Your task to perform on an android device: turn on translation in the chrome app Image 0: 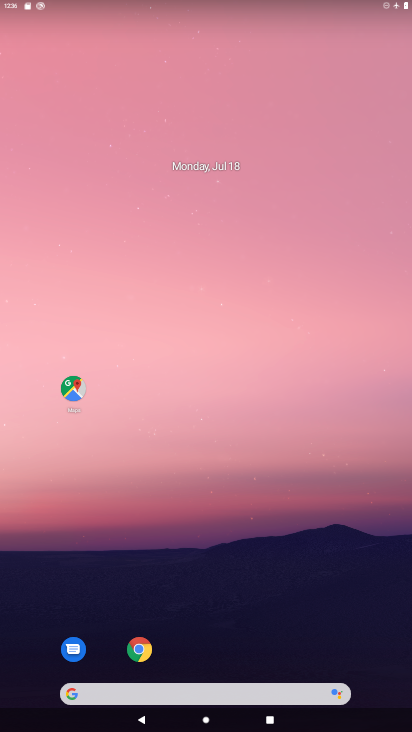
Step 0: click (139, 654)
Your task to perform on an android device: turn on translation in the chrome app Image 1: 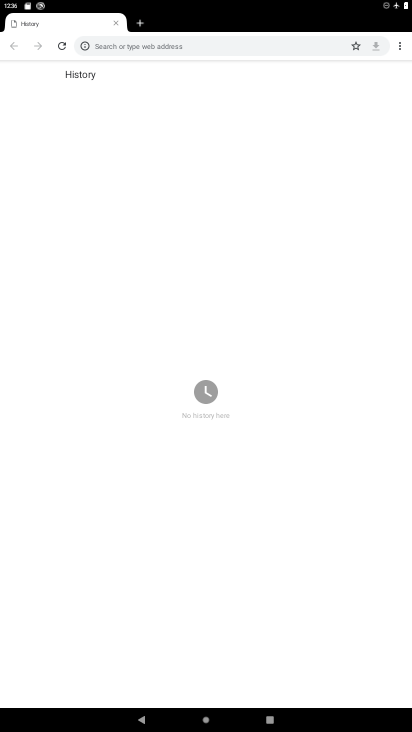
Step 1: click (401, 42)
Your task to perform on an android device: turn on translation in the chrome app Image 2: 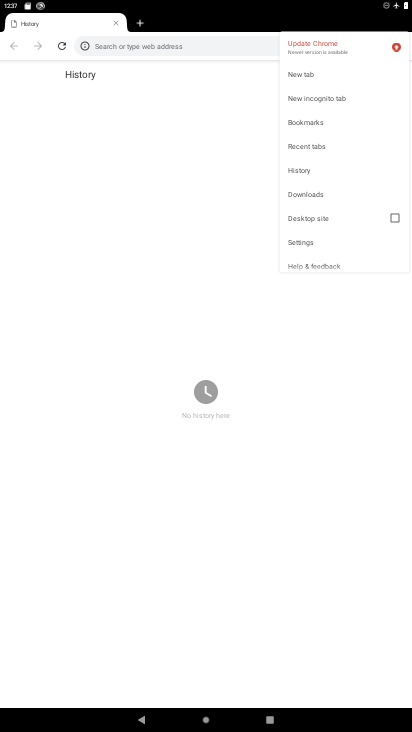
Step 2: click (319, 242)
Your task to perform on an android device: turn on translation in the chrome app Image 3: 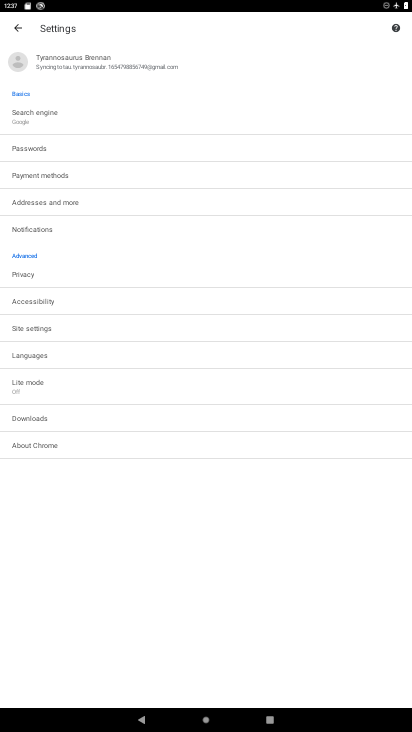
Step 3: click (63, 355)
Your task to perform on an android device: turn on translation in the chrome app Image 4: 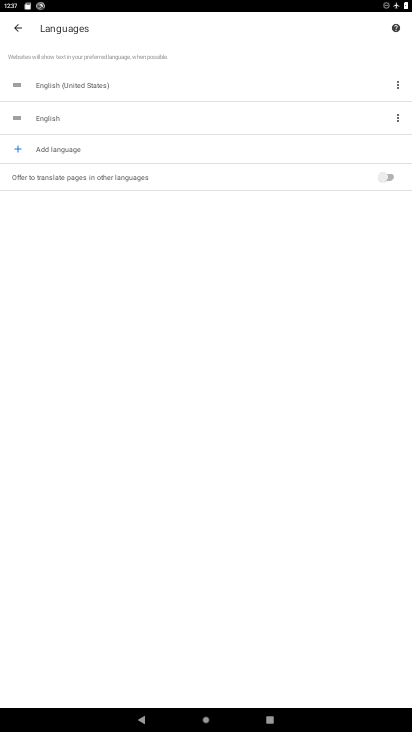
Step 4: click (387, 173)
Your task to perform on an android device: turn on translation in the chrome app Image 5: 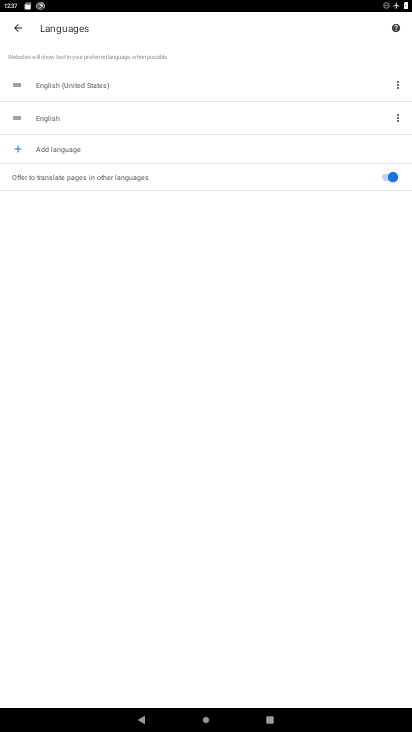
Step 5: task complete